Your task to perform on an android device: turn on showing notifications on the lock screen Image 0: 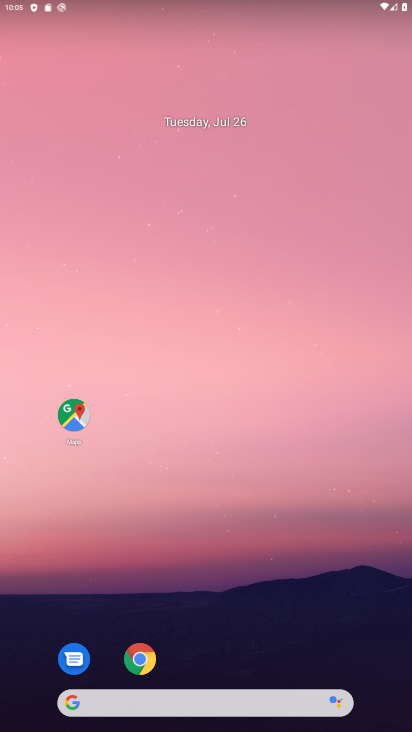
Step 0: drag from (381, 690) to (285, 102)
Your task to perform on an android device: turn on showing notifications on the lock screen Image 1: 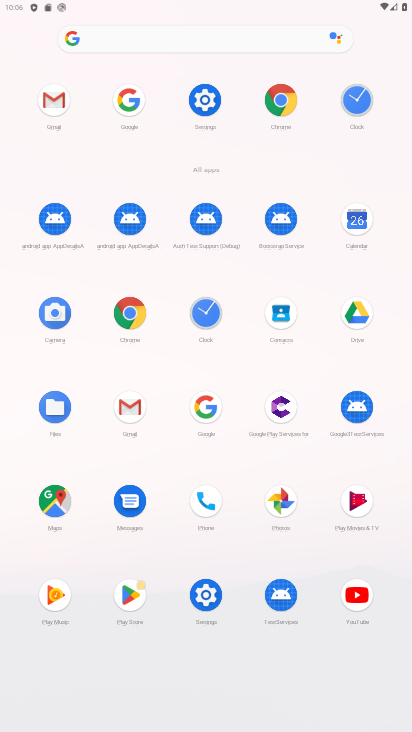
Step 1: click (213, 595)
Your task to perform on an android device: turn on showing notifications on the lock screen Image 2: 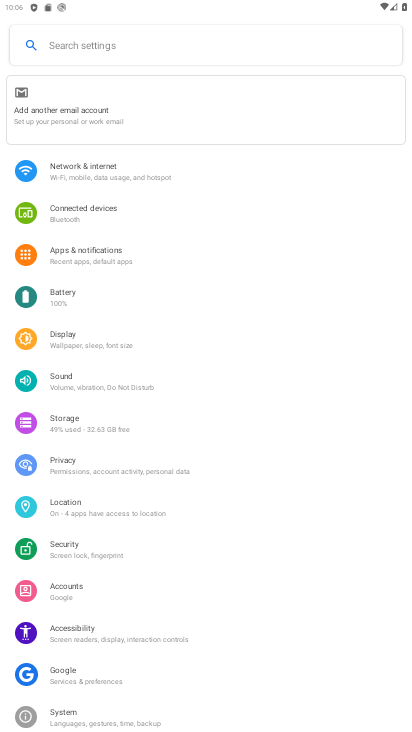
Step 2: click (97, 254)
Your task to perform on an android device: turn on showing notifications on the lock screen Image 3: 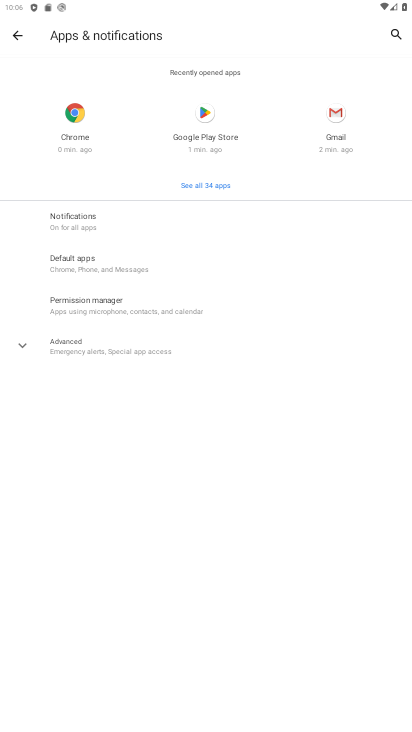
Step 3: click (80, 213)
Your task to perform on an android device: turn on showing notifications on the lock screen Image 4: 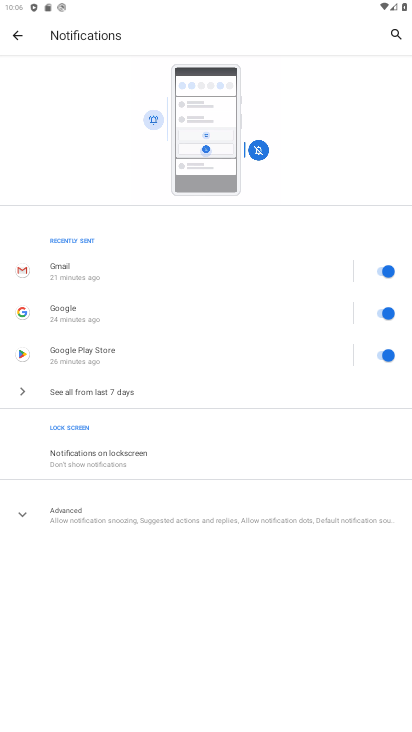
Step 4: click (116, 454)
Your task to perform on an android device: turn on showing notifications on the lock screen Image 5: 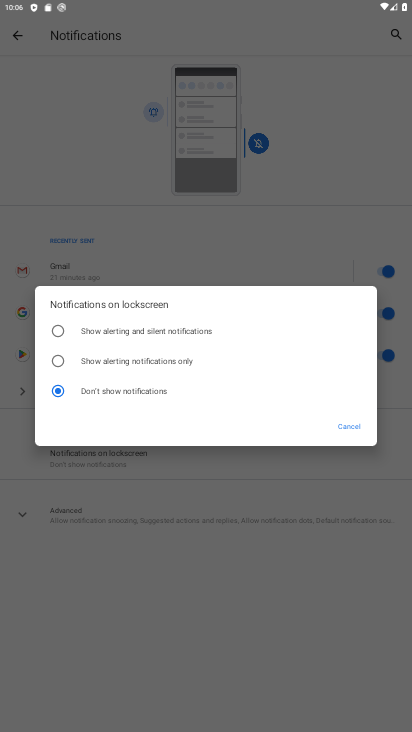
Step 5: click (53, 336)
Your task to perform on an android device: turn on showing notifications on the lock screen Image 6: 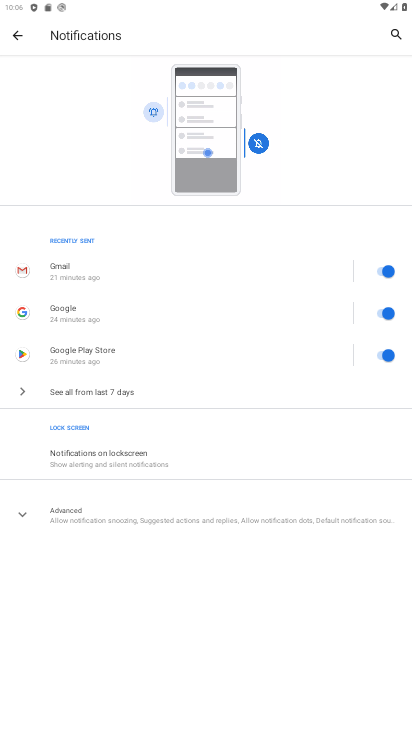
Step 6: task complete